Your task to perform on an android device: toggle priority inbox in the gmail app Image 0: 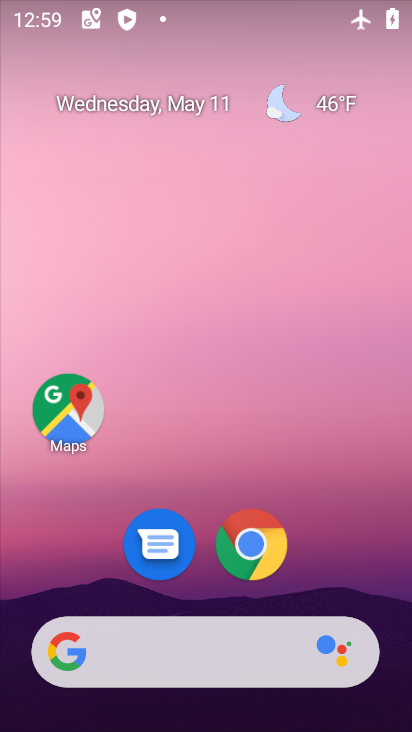
Step 0: drag from (390, 603) to (349, 58)
Your task to perform on an android device: toggle priority inbox in the gmail app Image 1: 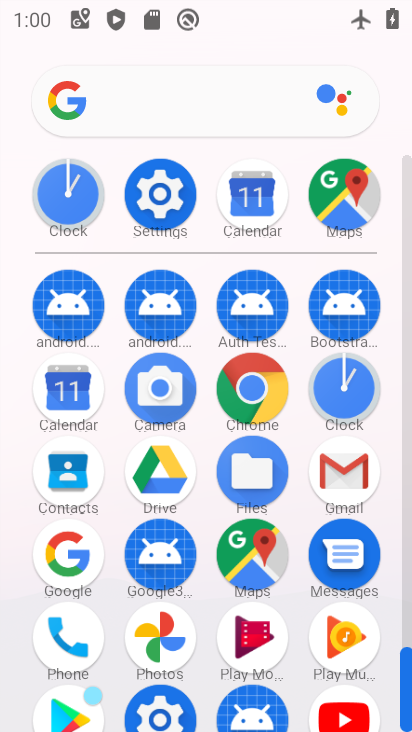
Step 1: click (339, 463)
Your task to perform on an android device: toggle priority inbox in the gmail app Image 2: 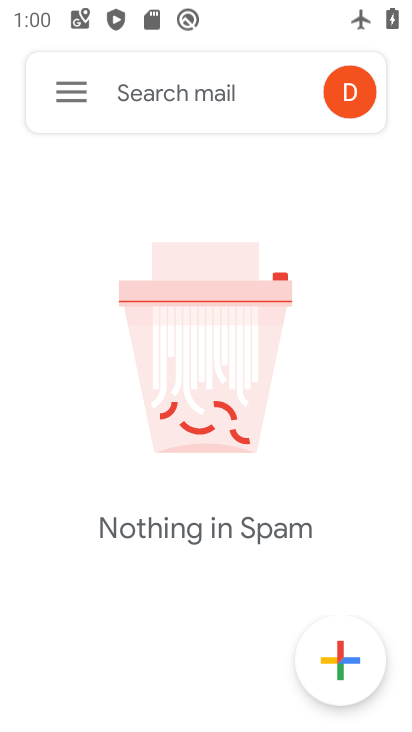
Step 2: click (75, 86)
Your task to perform on an android device: toggle priority inbox in the gmail app Image 3: 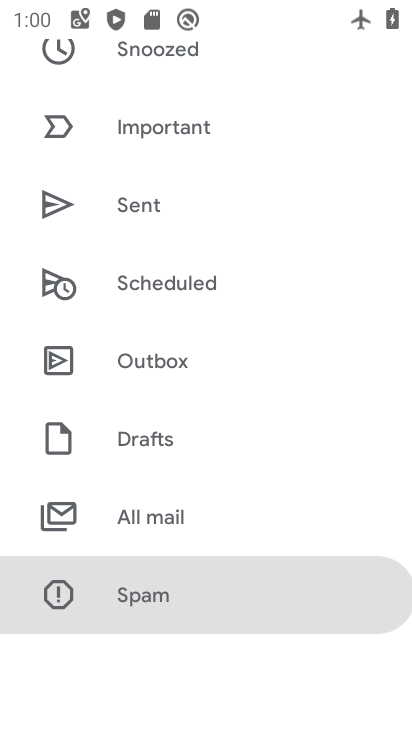
Step 3: drag from (270, 674) to (296, 276)
Your task to perform on an android device: toggle priority inbox in the gmail app Image 4: 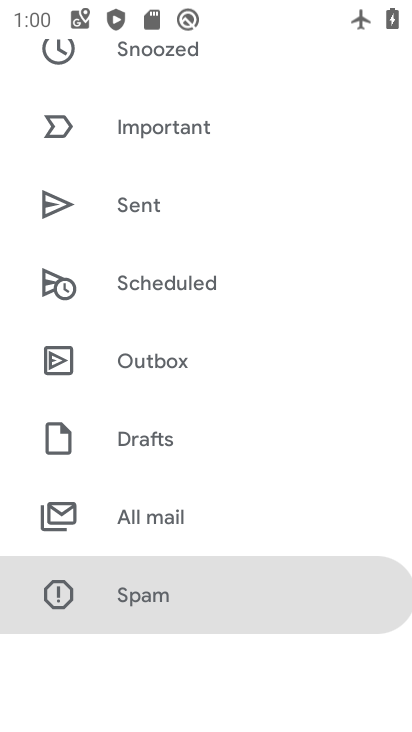
Step 4: drag from (267, 601) to (292, 111)
Your task to perform on an android device: toggle priority inbox in the gmail app Image 5: 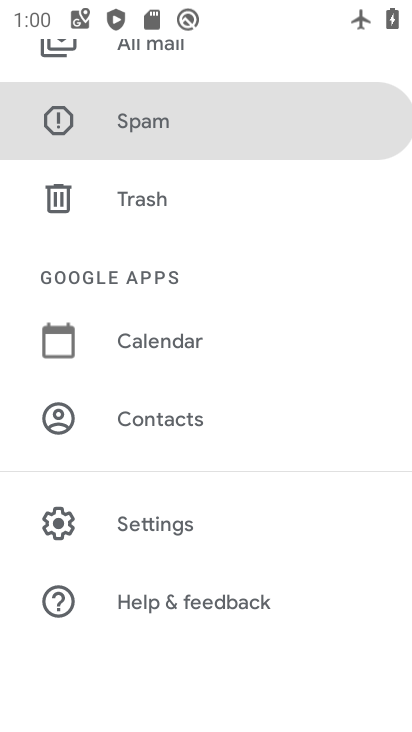
Step 5: click (153, 527)
Your task to perform on an android device: toggle priority inbox in the gmail app Image 6: 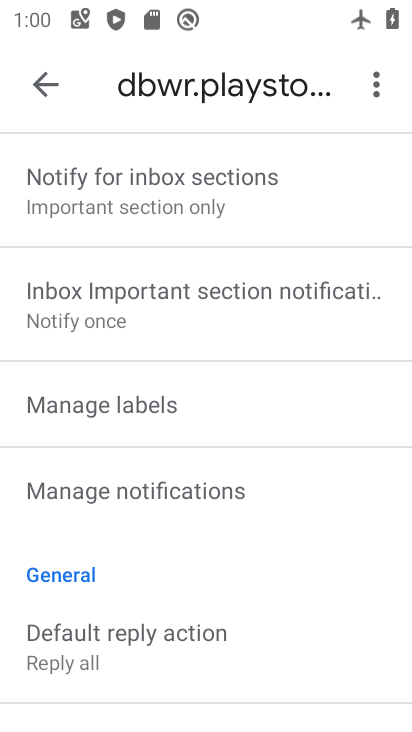
Step 6: drag from (321, 217) to (289, 481)
Your task to perform on an android device: toggle priority inbox in the gmail app Image 7: 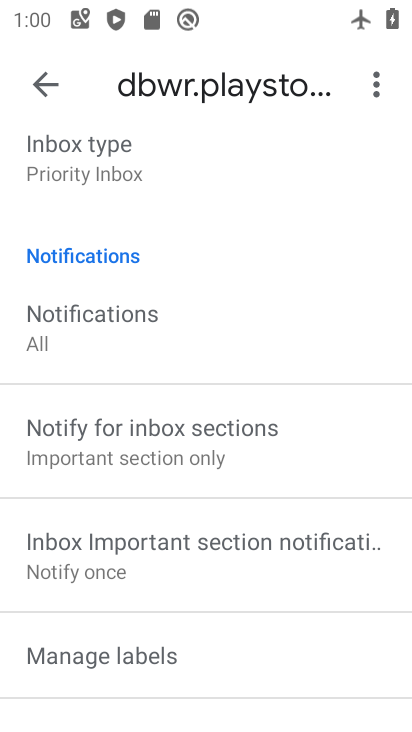
Step 7: drag from (247, 197) to (244, 392)
Your task to perform on an android device: toggle priority inbox in the gmail app Image 8: 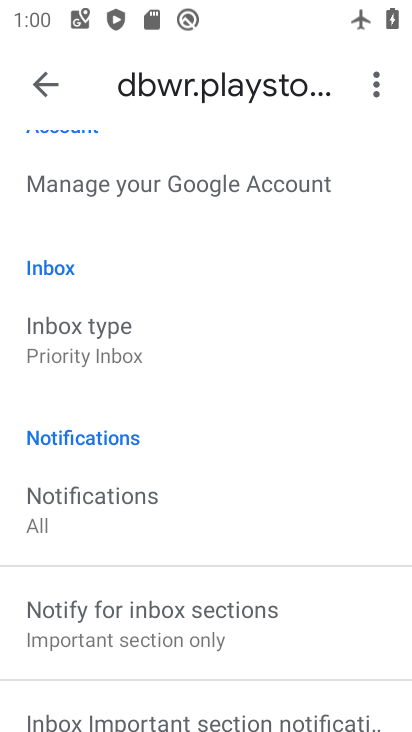
Step 8: click (66, 334)
Your task to perform on an android device: toggle priority inbox in the gmail app Image 9: 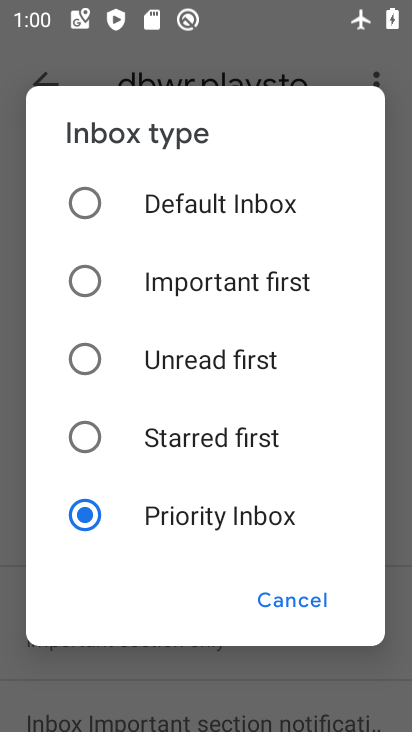
Step 9: click (80, 203)
Your task to perform on an android device: toggle priority inbox in the gmail app Image 10: 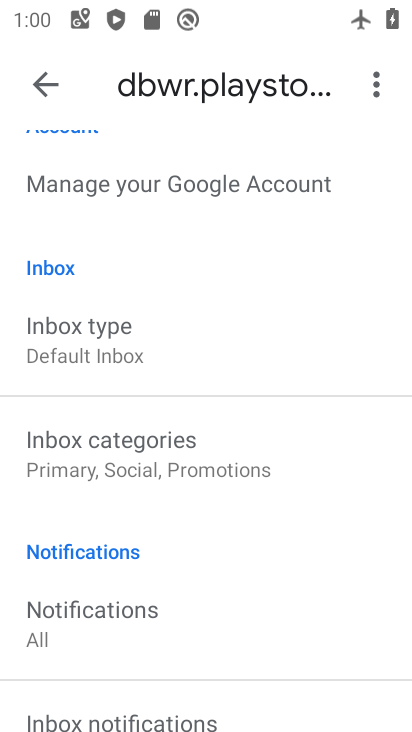
Step 10: task complete